Your task to perform on an android device: What's the weather going to be this weekend? Image 0: 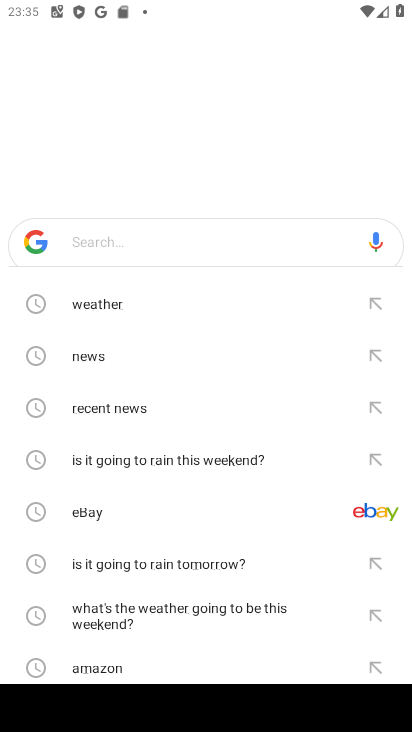
Step 0: click (91, 311)
Your task to perform on an android device: What's the weather going to be this weekend? Image 1: 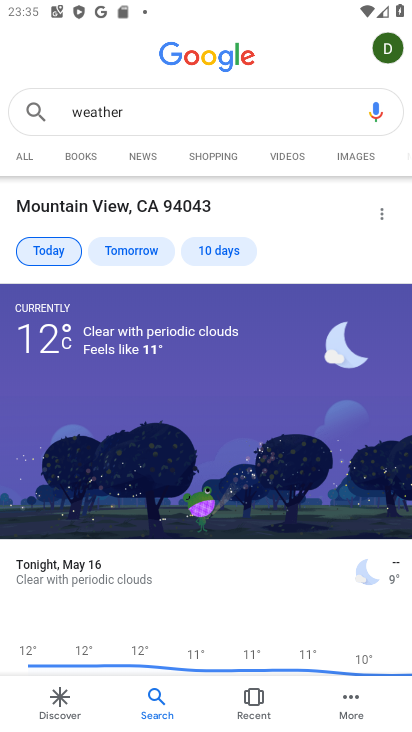
Step 1: task complete